Your task to perform on an android device: change your default location settings in chrome Image 0: 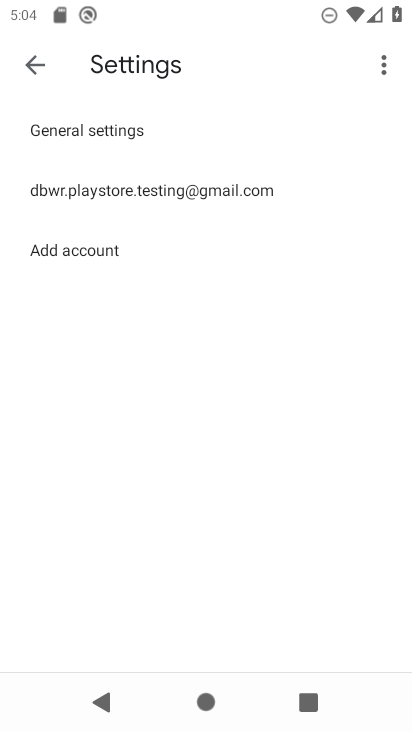
Step 0: press home button
Your task to perform on an android device: change your default location settings in chrome Image 1: 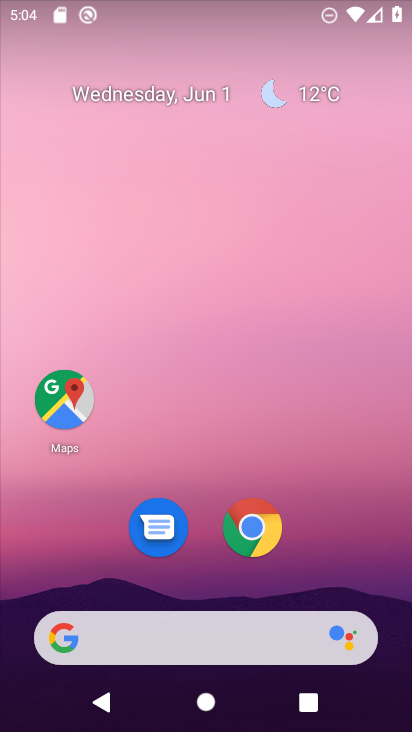
Step 1: drag from (212, 569) to (283, 8)
Your task to perform on an android device: change your default location settings in chrome Image 2: 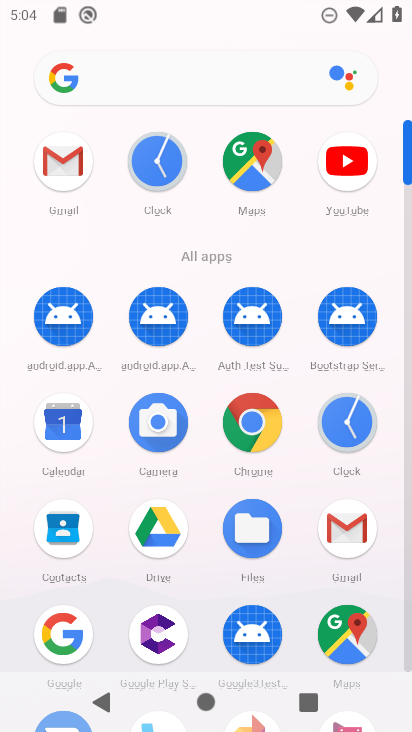
Step 2: drag from (205, 612) to (210, 246)
Your task to perform on an android device: change your default location settings in chrome Image 3: 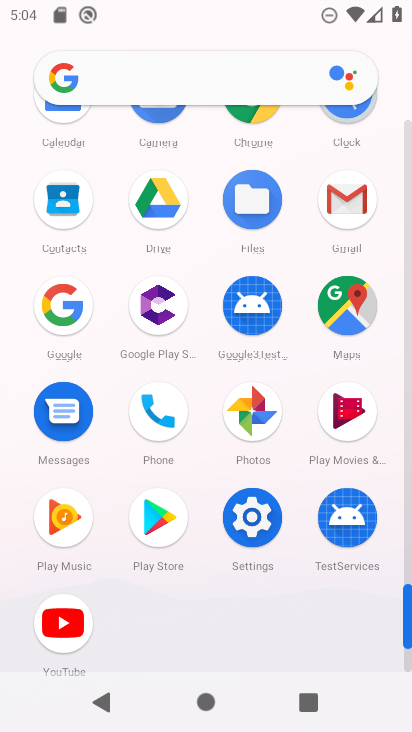
Step 3: click (252, 134)
Your task to perform on an android device: change your default location settings in chrome Image 4: 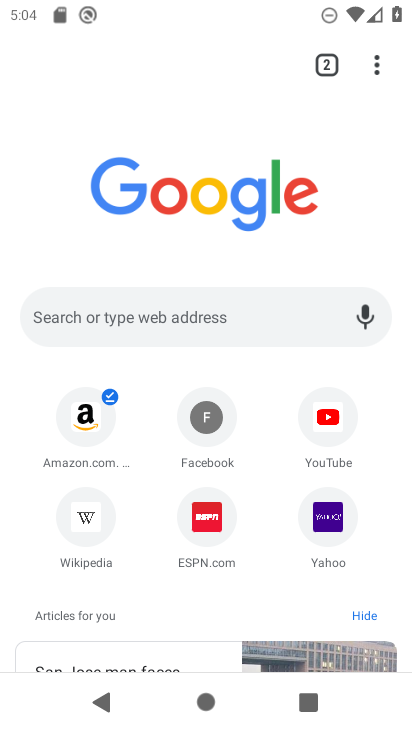
Step 4: click (381, 70)
Your task to perform on an android device: change your default location settings in chrome Image 5: 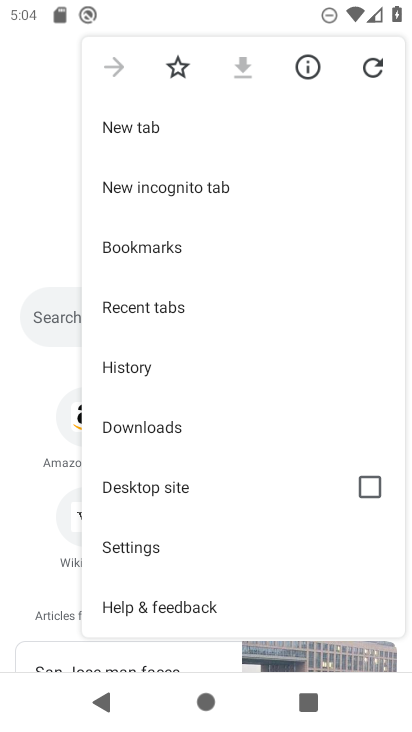
Step 5: click (151, 536)
Your task to perform on an android device: change your default location settings in chrome Image 6: 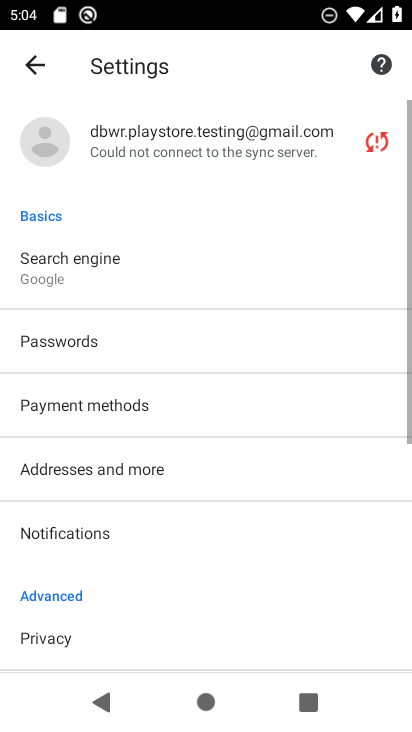
Step 6: drag from (151, 536) to (170, 208)
Your task to perform on an android device: change your default location settings in chrome Image 7: 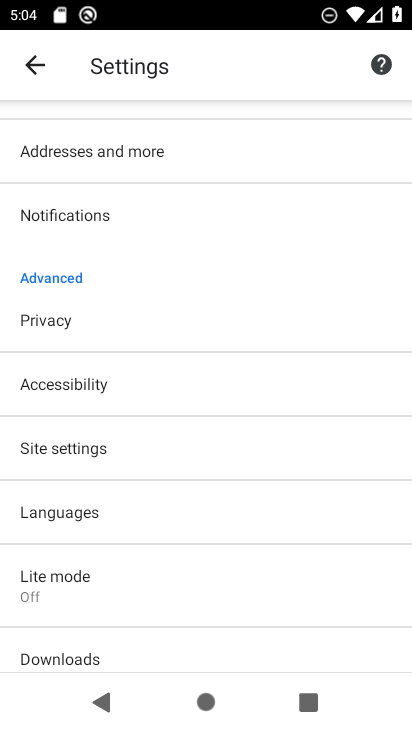
Step 7: drag from (156, 220) to (182, 554)
Your task to perform on an android device: change your default location settings in chrome Image 8: 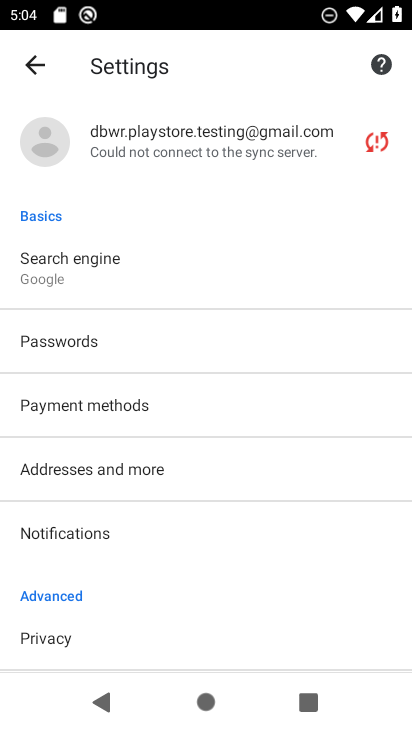
Step 8: drag from (182, 554) to (208, 271)
Your task to perform on an android device: change your default location settings in chrome Image 9: 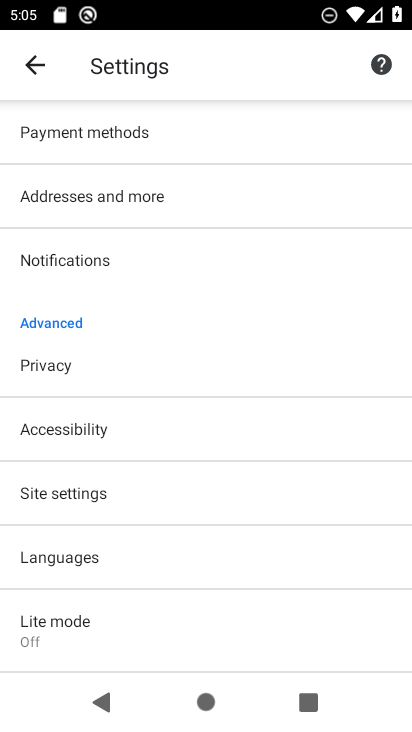
Step 9: drag from (165, 629) to (174, 210)
Your task to perform on an android device: change your default location settings in chrome Image 10: 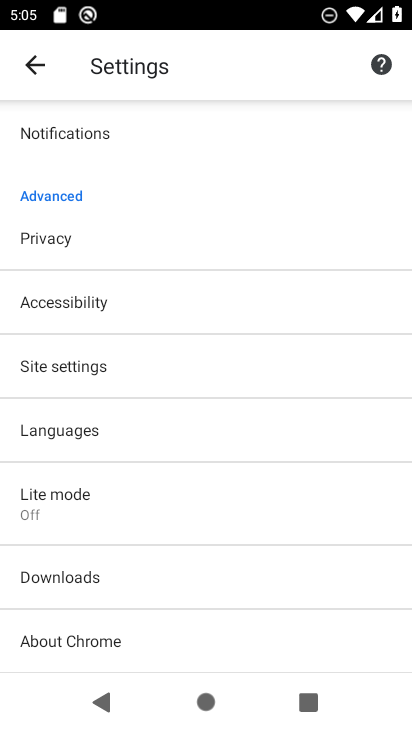
Step 10: drag from (117, 234) to (126, 682)
Your task to perform on an android device: change your default location settings in chrome Image 11: 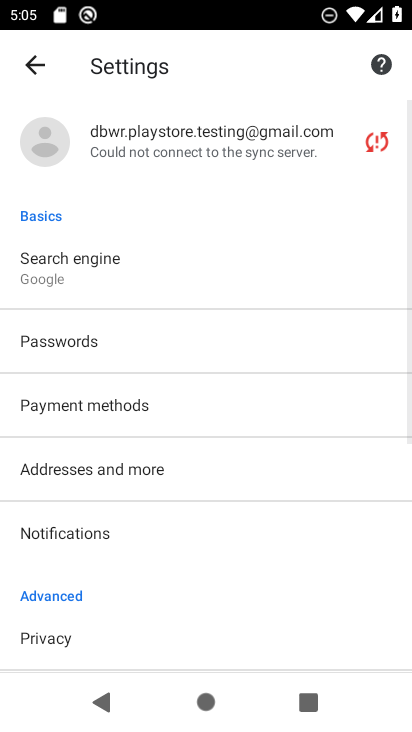
Step 11: drag from (169, 621) to (178, 208)
Your task to perform on an android device: change your default location settings in chrome Image 12: 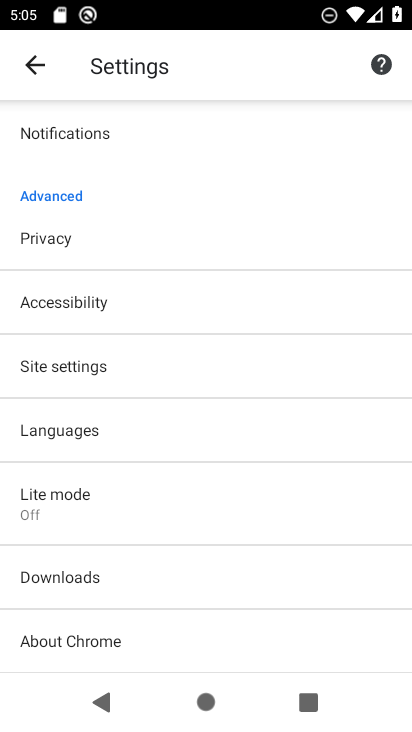
Step 12: click (59, 374)
Your task to perform on an android device: change your default location settings in chrome Image 13: 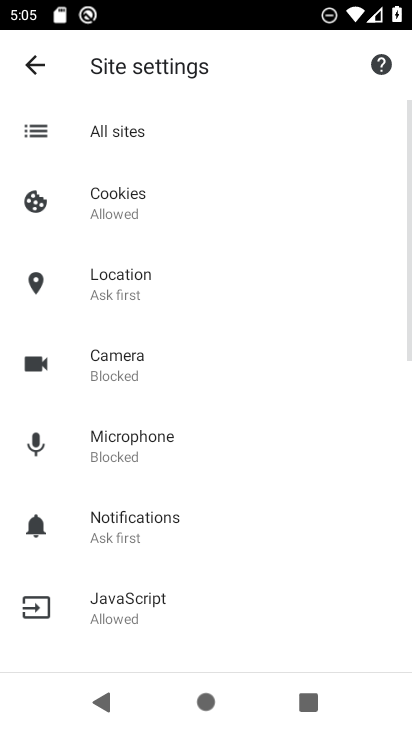
Step 13: click (147, 288)
Your task to perform on an android device: change your default location settings in chrome Image 14: 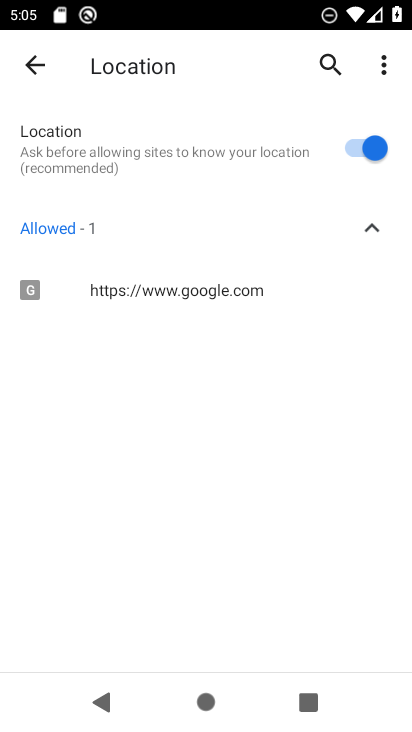
Step 14: click (381, 145)
Your task to perform on an android device: change your default location settings in chrome Image 15: 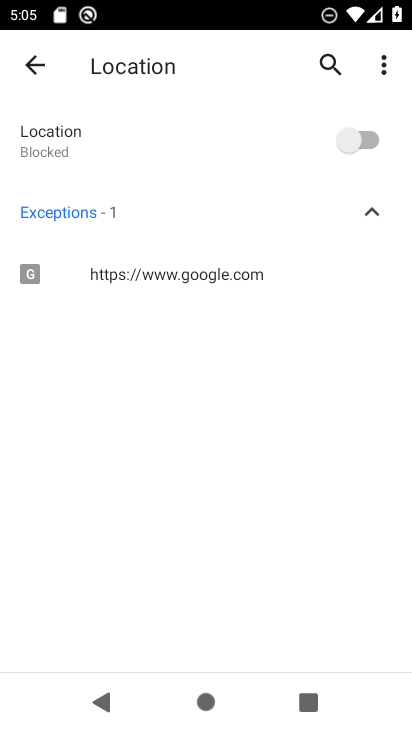
Step 15: task complete